Your task to perform on an android device: When is my next meeting? Image 0: 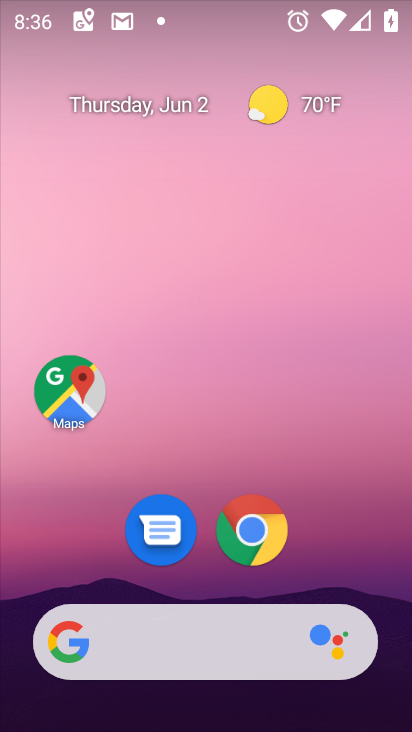
Step 0: drag from (123, 616) to (103, 265)
Your task to perform on an android device: When is my next meeting? Image 1: 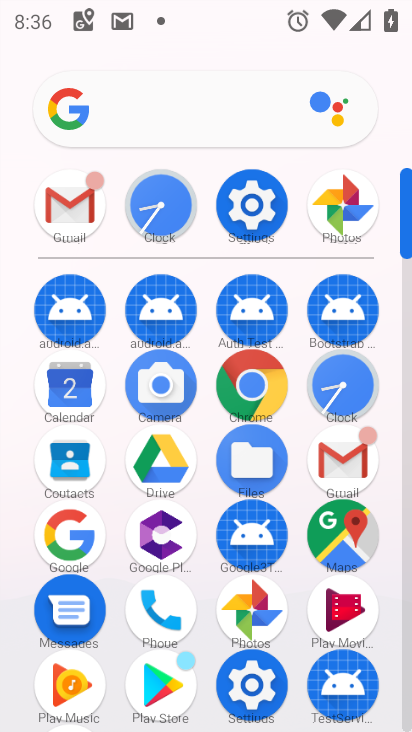
Step 1: click (55, 387)
Your task to perform on an android device: When is my next meeting? Image 2: 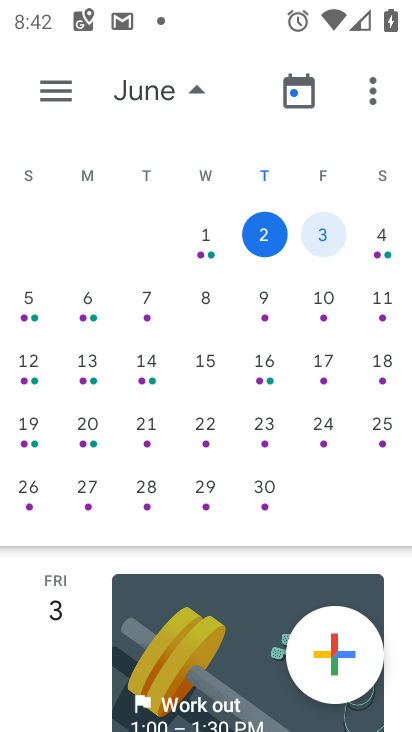
Step 2: click (326, 233)
Your task to perform on an android device: When is my next meeting? Image 3: 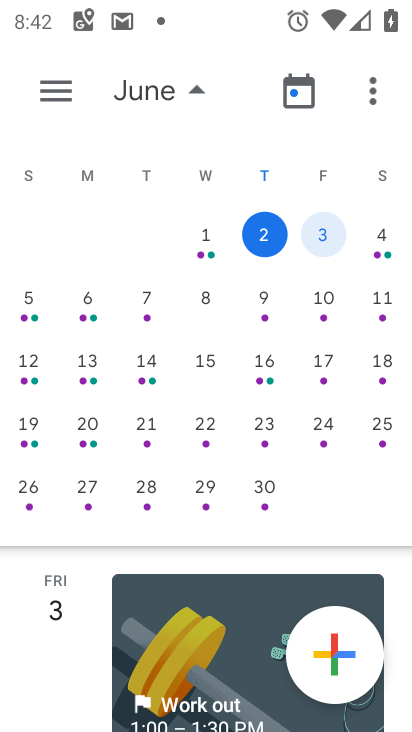
Step 3: task complete